Your task to perform on an android device: Open Google Image 0: 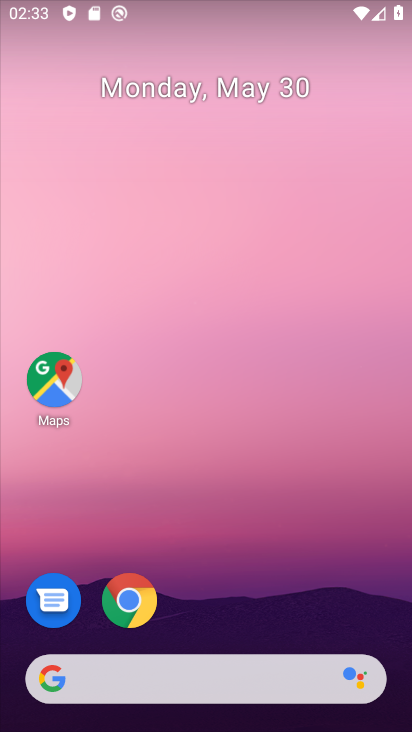
Step 0: drag from (262, 610) to (269, 50)
Your task to perform on an android device: Open Google Image 1: 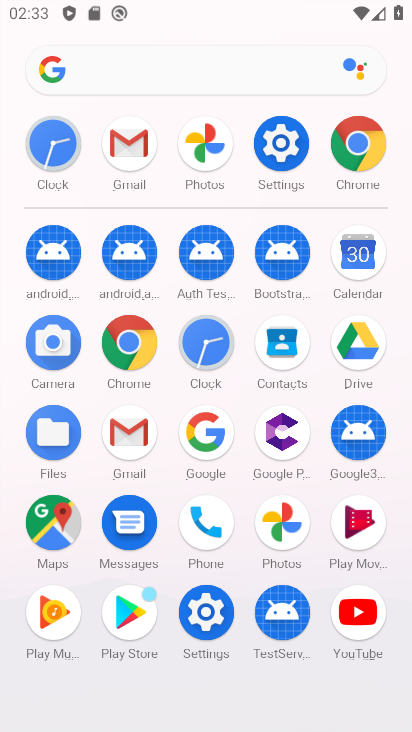
Step 1: click (209, 432)
Your task to perform on an android device: Open Google Image 2: 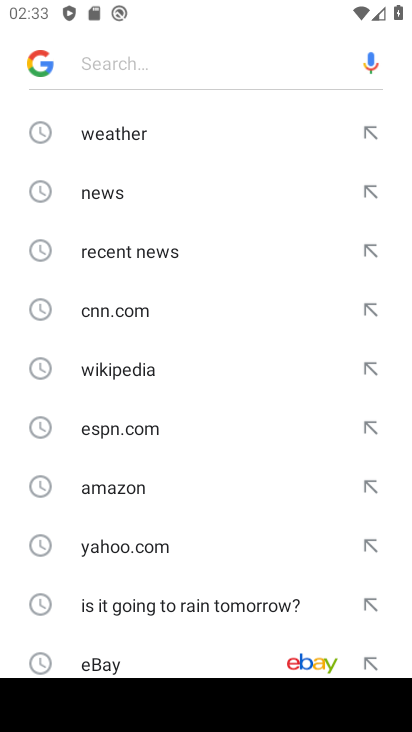
Step 2: task complete